Your task to perform on an android device: Go to Wikipedia Image 0: 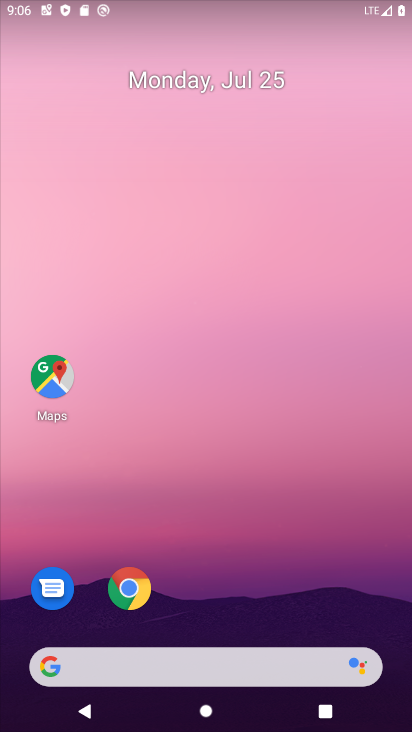
Step 0: click (124, 594)
Your task to perform on an android device: Go to Wikipedia Image 1: 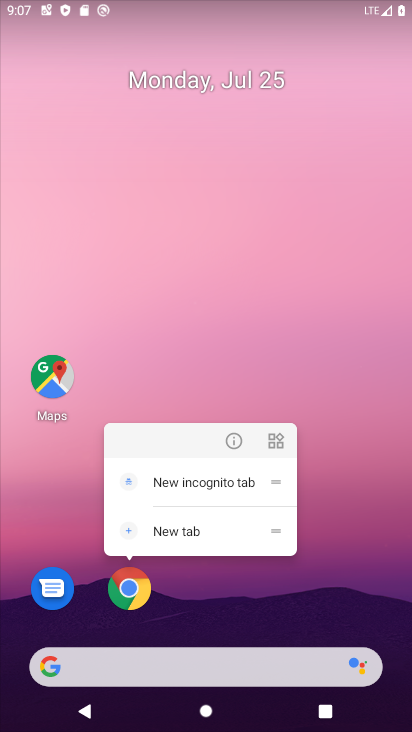
Step 1: click (128, 579)
Your task to perform on an android device: Go to Wikipedia Image 2: 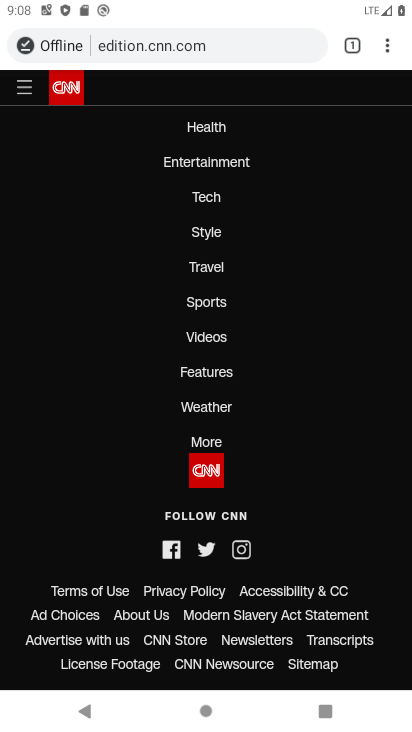
Step 2: task complete